Your task to perform on an android device: Open Maps and search for coffee Image 0: 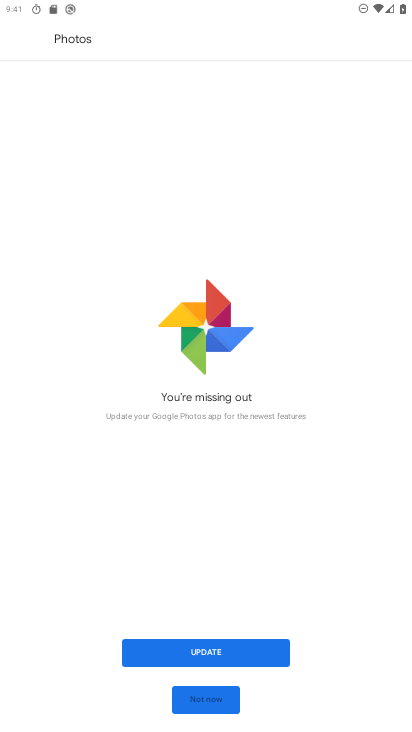
Step 0: press home button
Your task to perform on an android device: Open Maps and search for coffee Image 1: 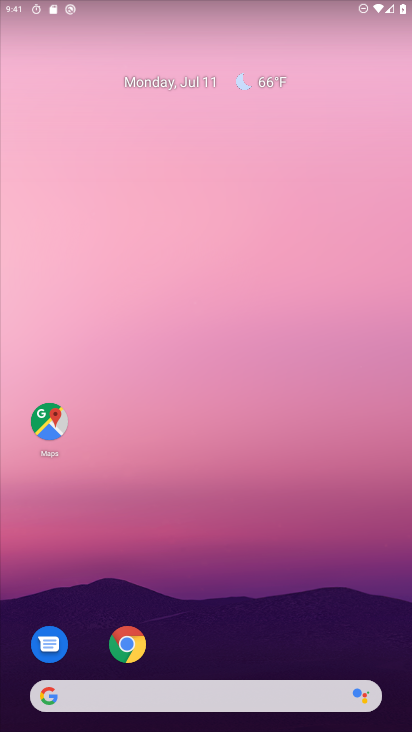
Step 1: drag from (271, 649) to (248, 195)
Your task to perform on an android device: Open Maps and search for coffee Image 2: 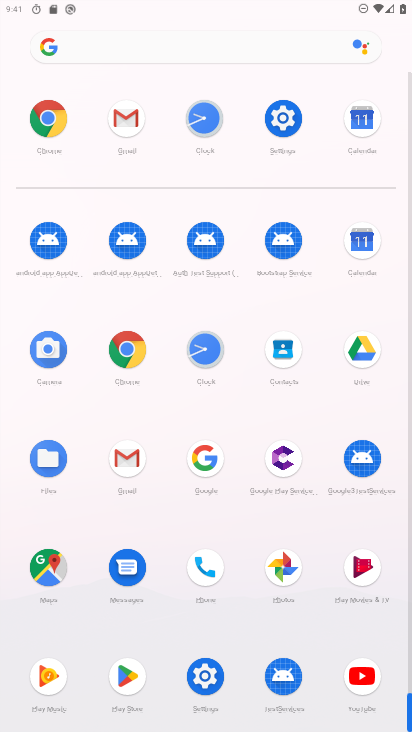
Step 2: click (39, 562)
Your task to perform on an android device: Open Maps and search for coffee Image 3: 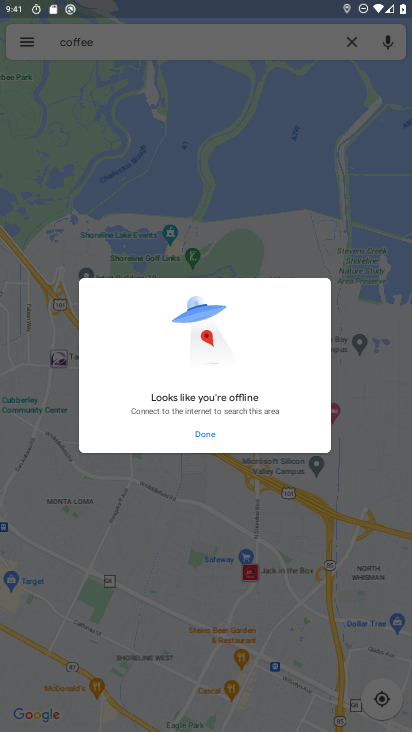
Step 3: click (202, 431)
Your task to perform on an android device: Open Maps and search for coffee Image 4: 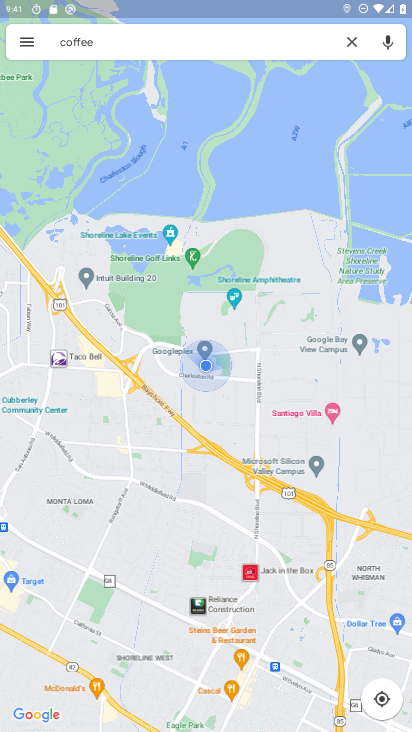
Step 4: click (184, 41)
Your task to perform on an android device: Open Maps and search for coffee Image 5: 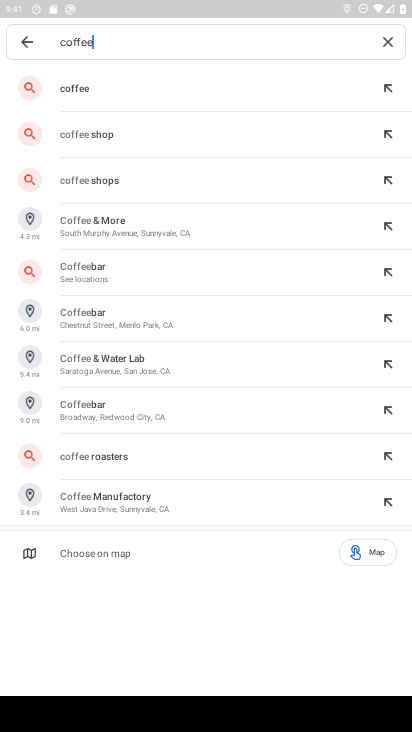
Step 5: press enter
Your task to perform on an android device: Open Maps and search for coffee Image 6: 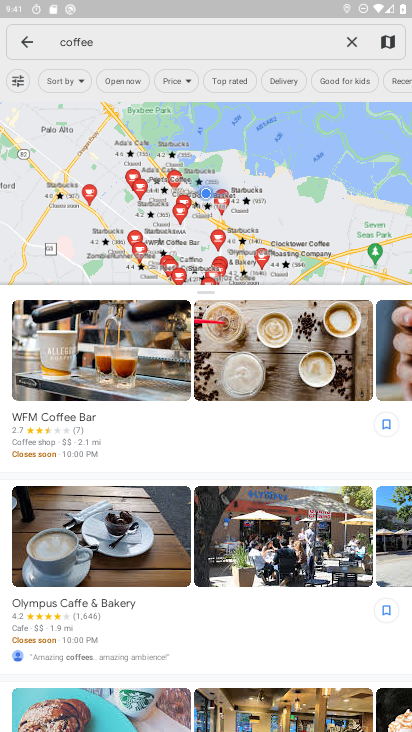
Step 6: task complete